Your task to perform on an android device: turn on priority inbox in the gmail app Image 0: 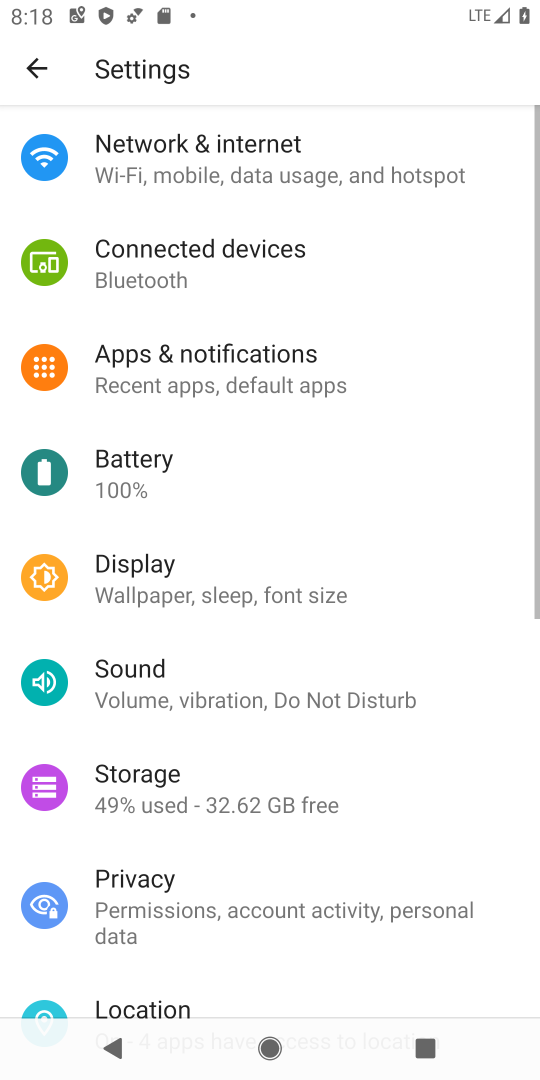
Step 0: press home button
Your task to perform on an android device: turn on priority inbox in the gmail app Image 1: 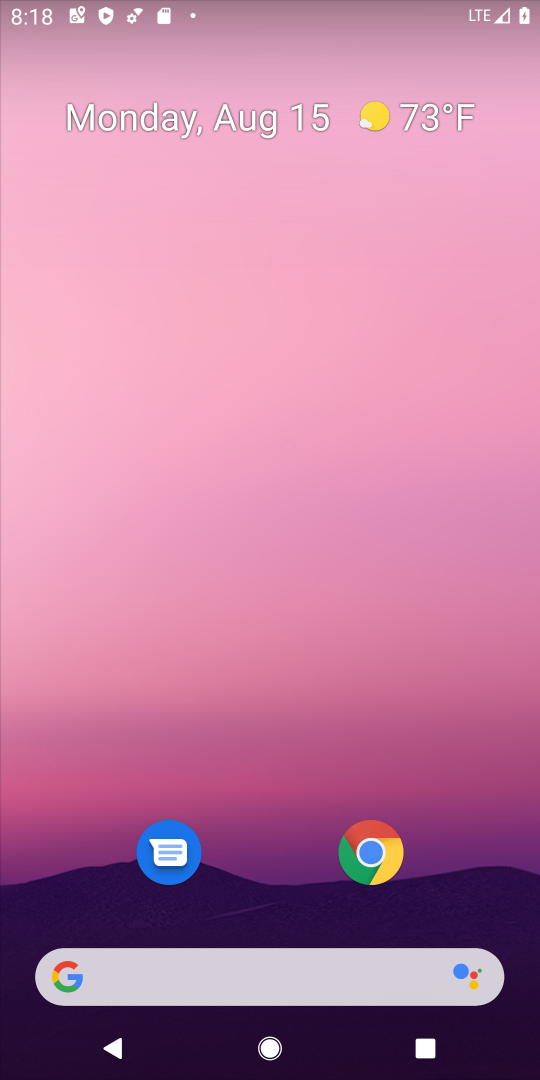
Step 1: drag from (283, 961) to (264, 168)
Your task to perform on an android device: turn on priority inbox in the gmail app Image 2: 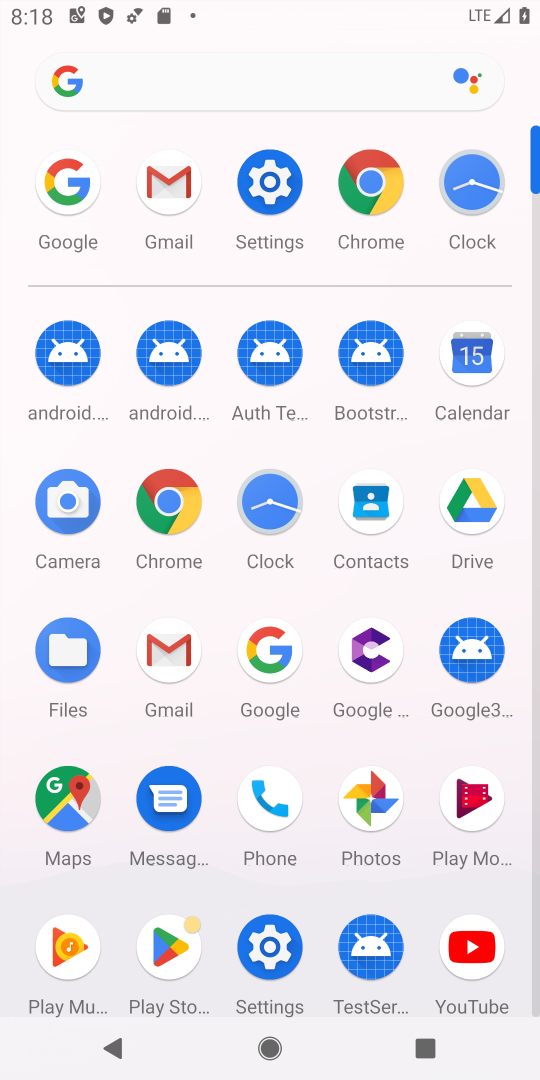
Step 2: click (167, 180)
Your task to perform on an android device: turn on priority inbox in the gmail app Image 3: 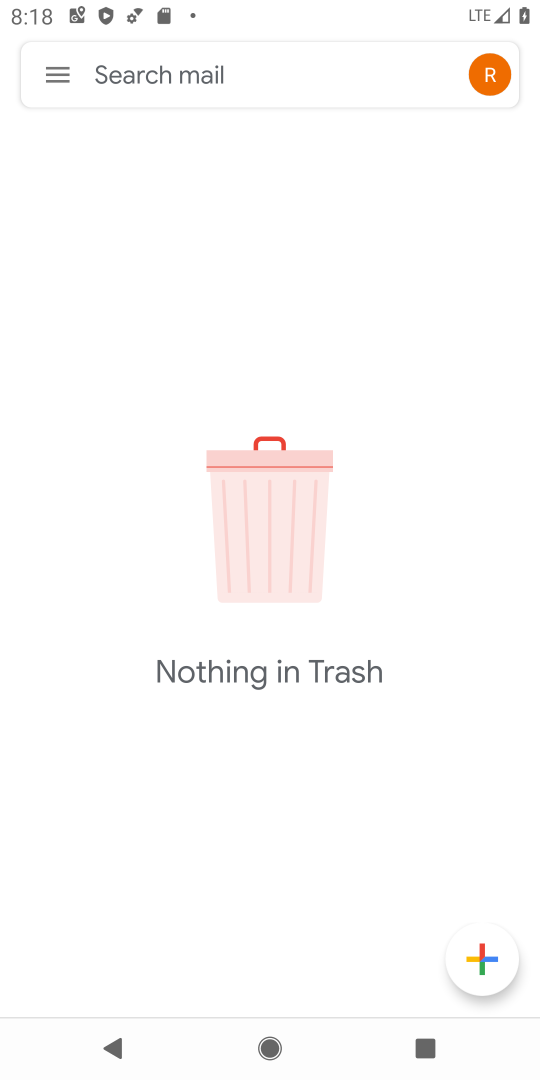
Step 3: click (62, 78)
Your task to perform on an android device: turn on priority inbox in the gmail app Image 4: 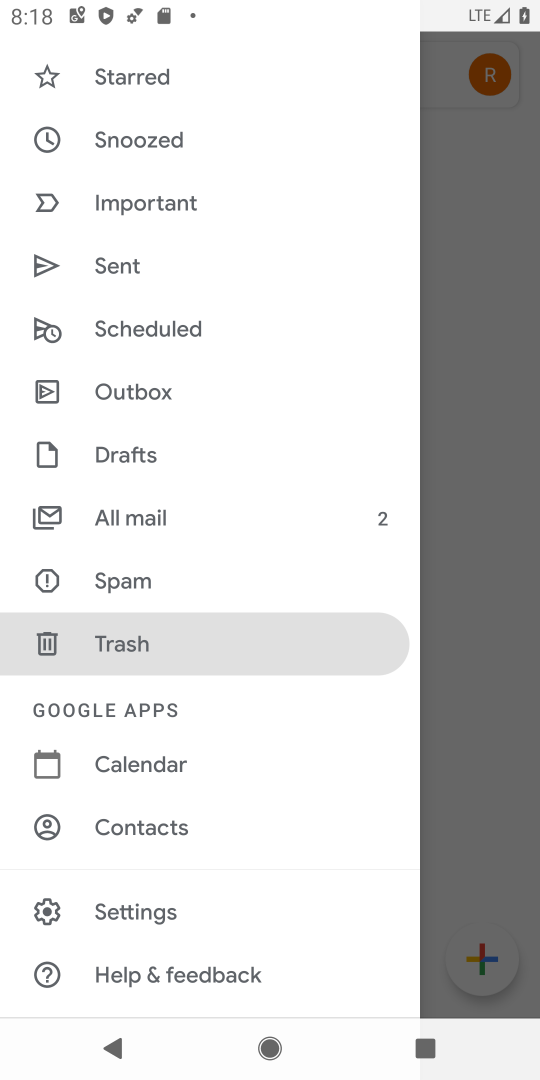
Step 4: click (151, 912)
Your task to perform on an android device: turn on priority inbox in the gmail app Image 5: 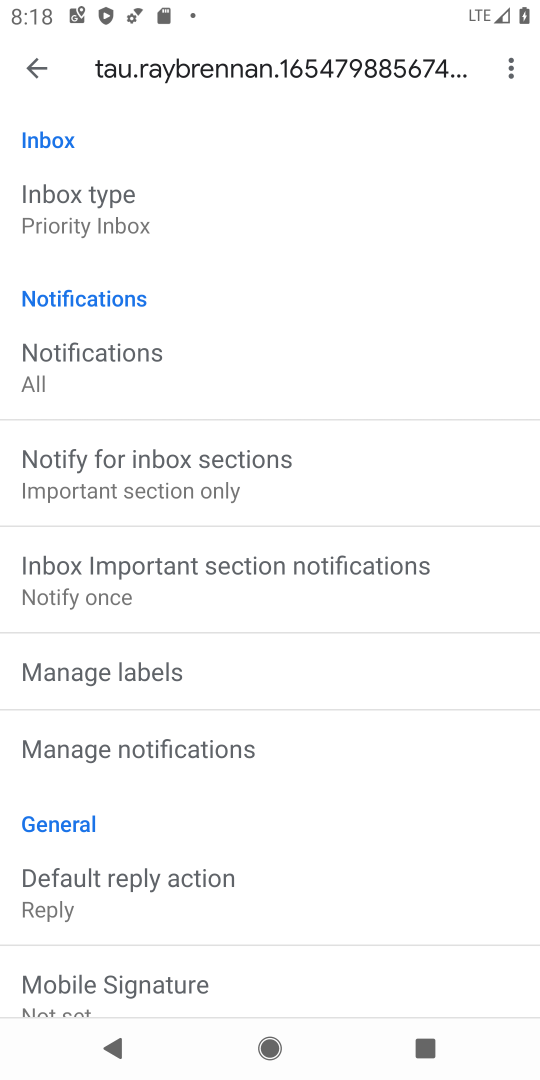
Step 5: task complete